Your task to perform on an android device: toggle wifi Image 0: 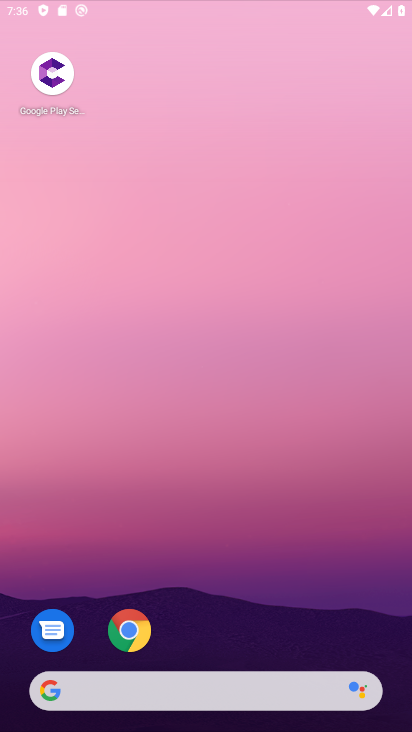
Step 0: drag from (216, 604) to (223, 157)
Your task to perform on an android device: toggle wifi Image 1: 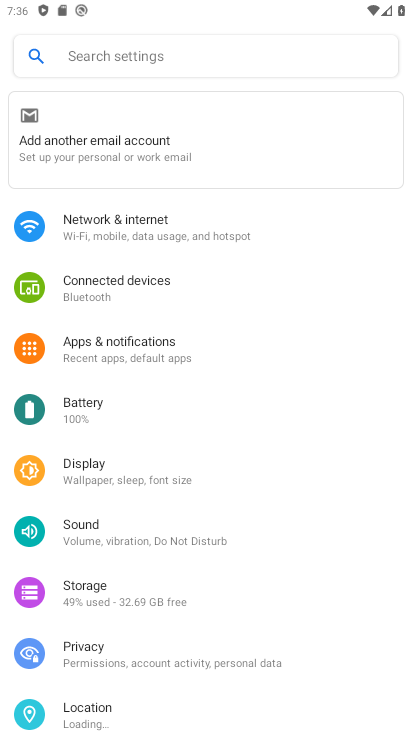
Step 1: click (81, 229)
Your task to perform on an android device: toggle wifi Image 2: 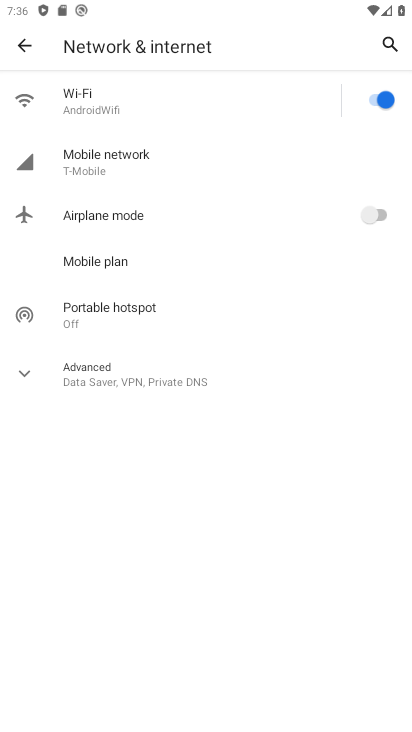
Step 2: click (382, 95)
Your task to perform on an android device: toggle wifi Image 3: 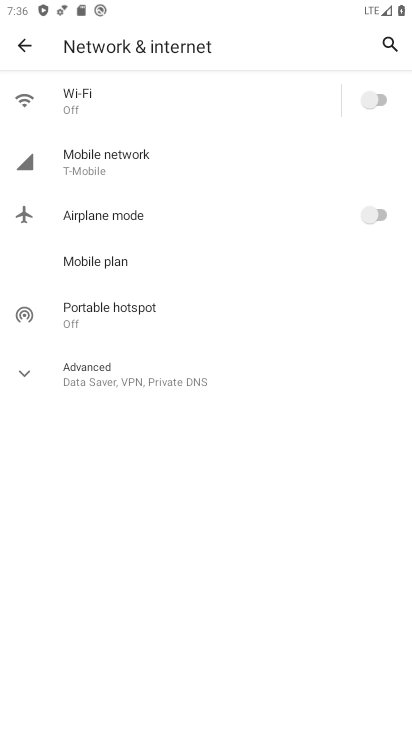
Step 3: task complete